Your task to perform on an android device: turn on airplane mode Image 0: 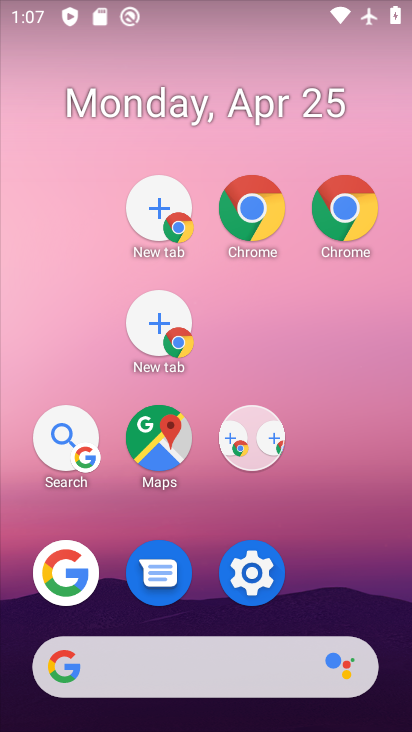
Step 0: drag from (275, 705) to (255, 59)
Your task to perform on an android device: turn on airplane mode Image 1: 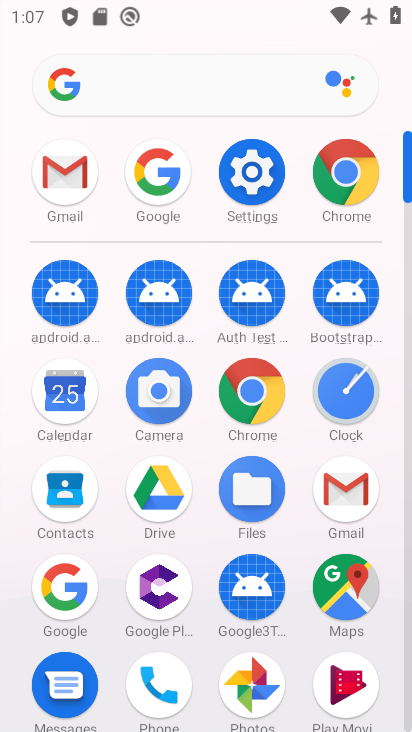
Step 1: click (254, 171)
Your task to perform on an android device: turn on airplane mode Image 2: 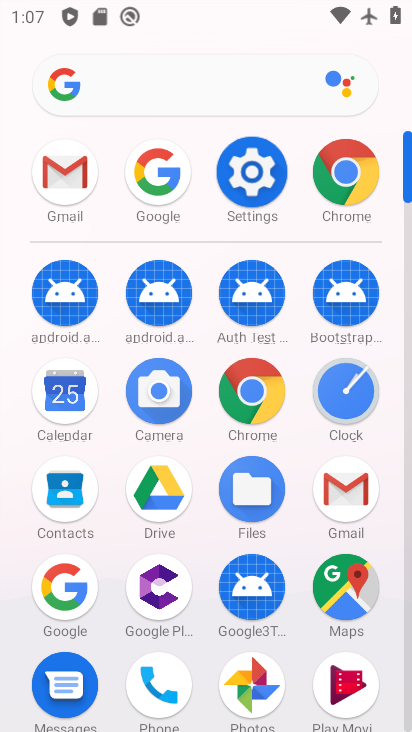
Step 2: click (254, 170)
Your task to perform on an android device: turn on airplane mode Image 3: 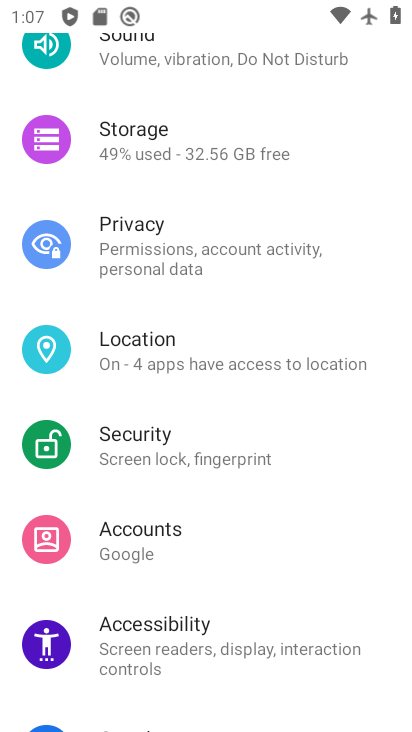
Step 3: click (255, 168)
Your task to perform on an android device: turn on airplane mode Image 4: 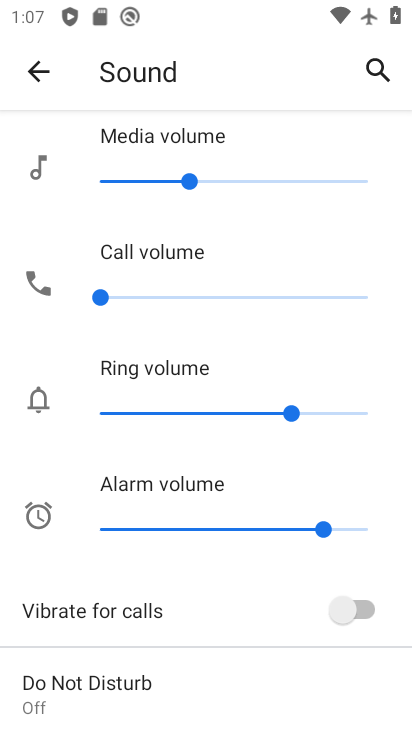
Step 4: click (37, 68)
Your task to perform on an android device: turn on airplane mode Image 5: 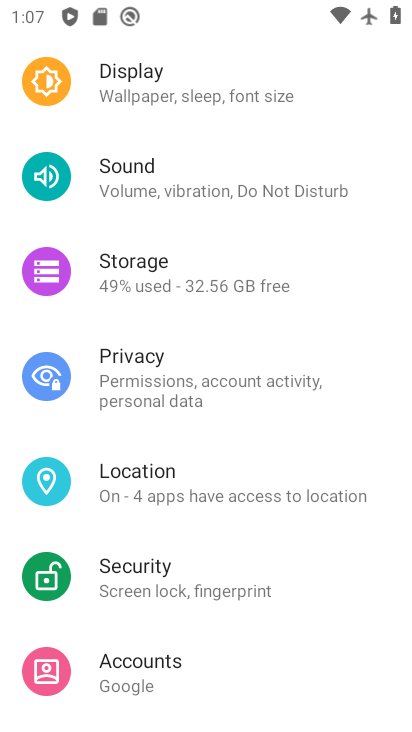
Step 5: drag from (216, 551) to (231, 585)
Your task to perform on an android device: turn on airplane mode Image 6: 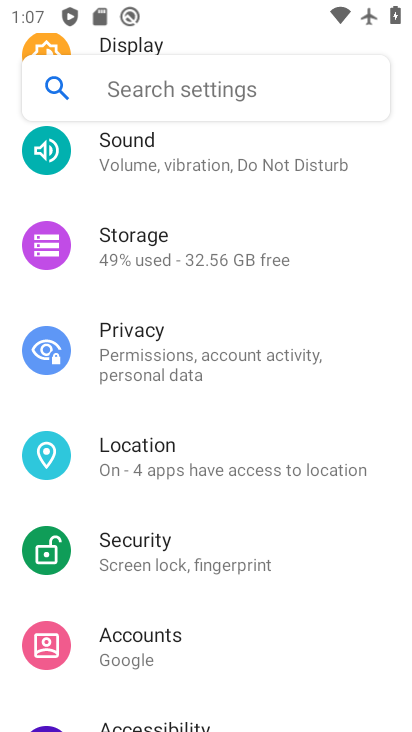
Step 6: drag from (210, 272) to (255, 649)
Your task to perform on an android device: turn on airplane mode Image 7: 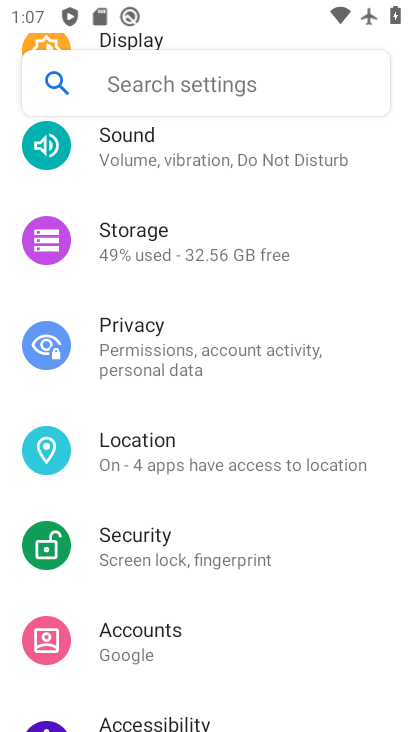
Step 7: drag from (196, 326) to (251, 632)
Your task to perform on an android device: turn on airplane mode Image 8: 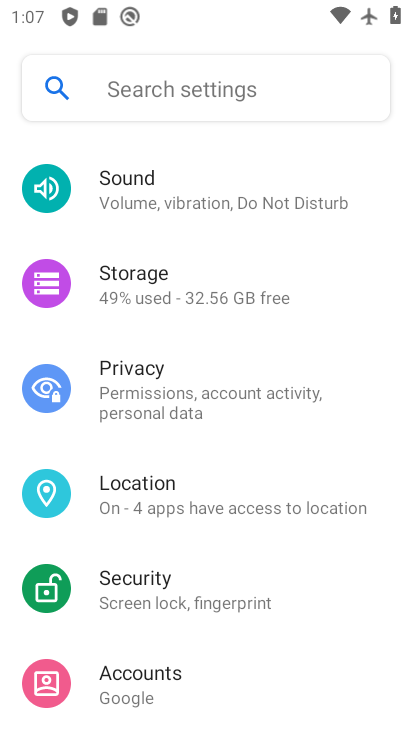
Step 8: drag from (263, 576) to (279, 692)
Your task to perform on an android device: turn on airplane mode Image 9: 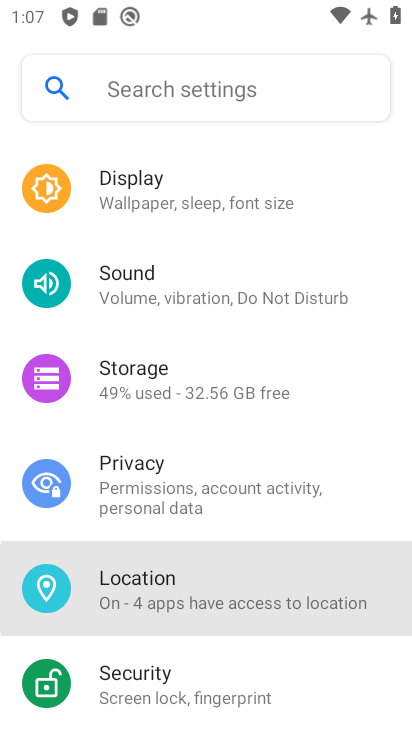
Step 9: drag from (144, 143) to (239, 697)
Your task to perform on an android device: turn on airplane mode Image 10: 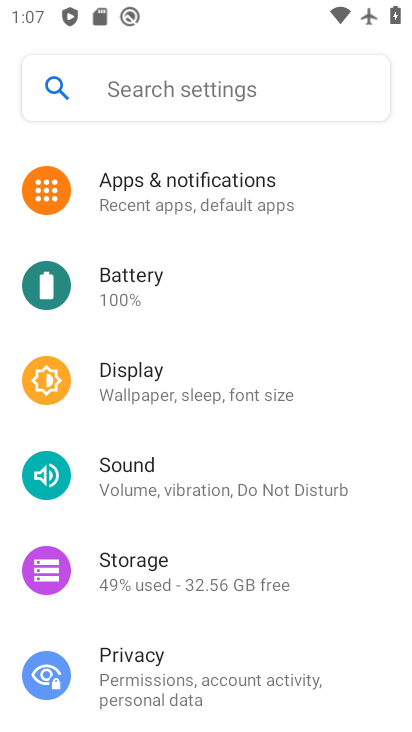
Step 10: drag from (212, 166) to (217, 648)
Your task to perform on an android device: turn on airplane mode Image 11: 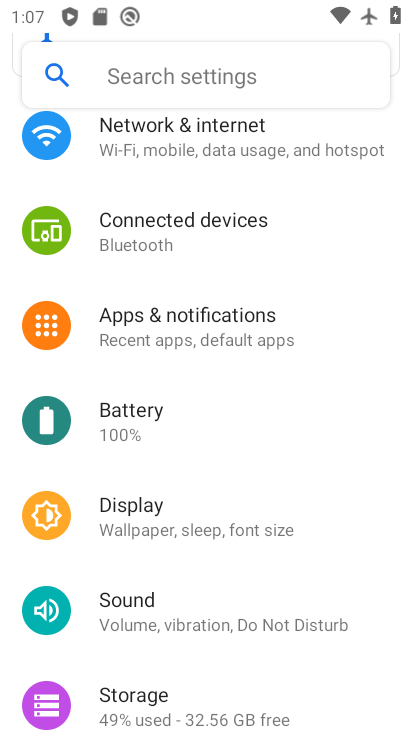
Step 11: click (207, 135)
Your task to perform on an android device: turn on airplane mode Image 12: 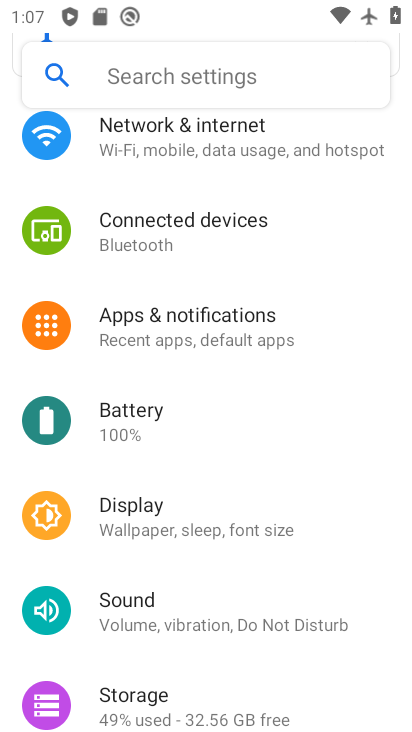
Step 12: click (207, 135)
Your task to perform on an android device: turn on airplane mode Image 13: 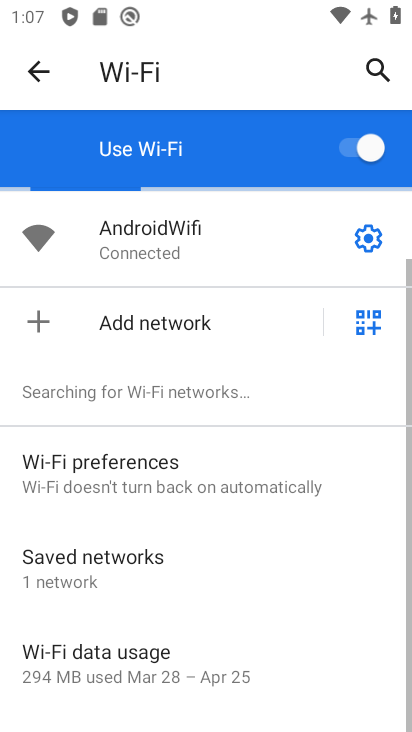
Step 13: task complete